Your task to perform on an android device: turn smart compose on in the gmail app Image 0: 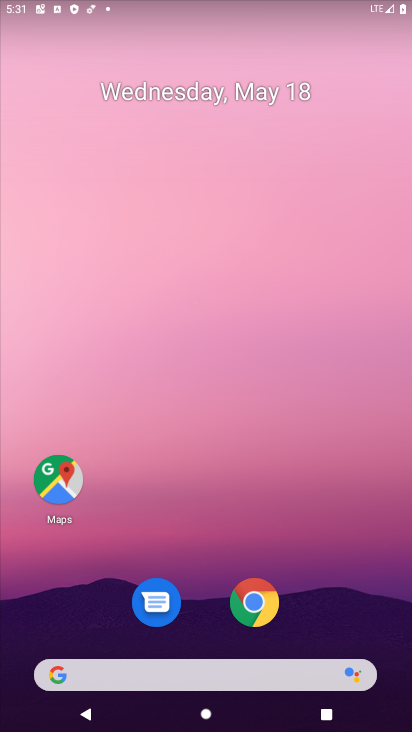
Step 0: drag from (274, 676) to (313, 40)
Your task to perform on an android device: turn smart compose on in the gmail app Image 1: 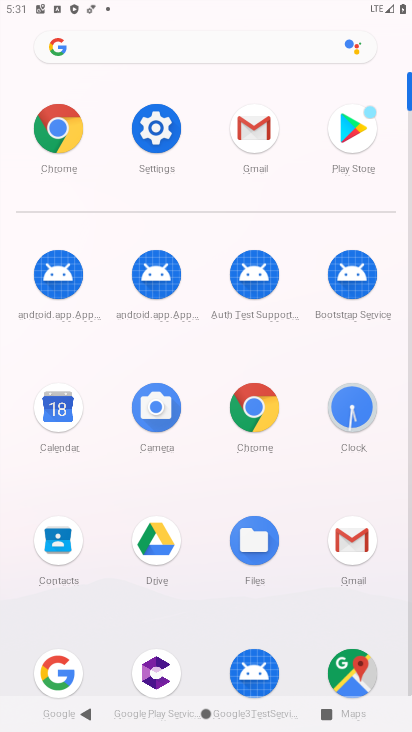
Step 1: click (349, 544)
Your task to perform on an android device: turn smart compose on in the gmail app Image 2: 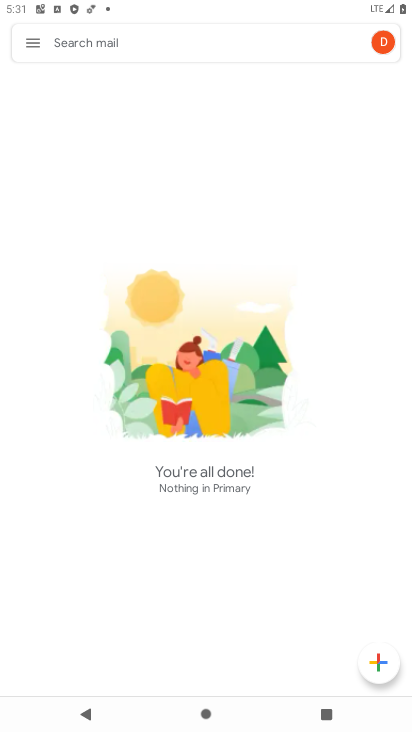
Step 2: click (28, 42)
Your task to perform on an android device: turn smart compose on in the gmail app Image 3: 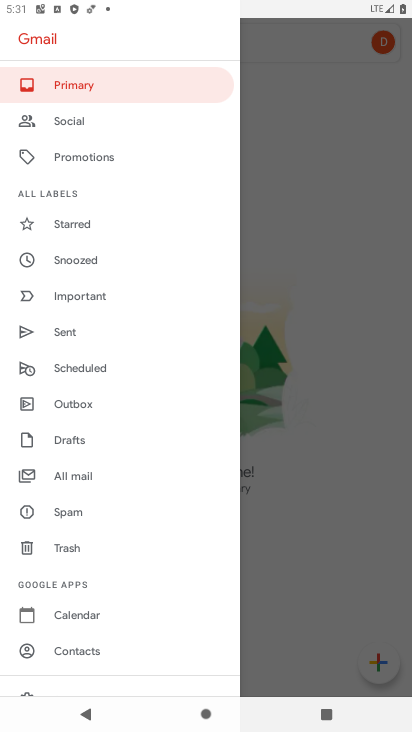
Step 3: drag from (90, 651) to (85, 234)
Your task to perform on an android device: turn smart compose on in the gmail app Image 4: 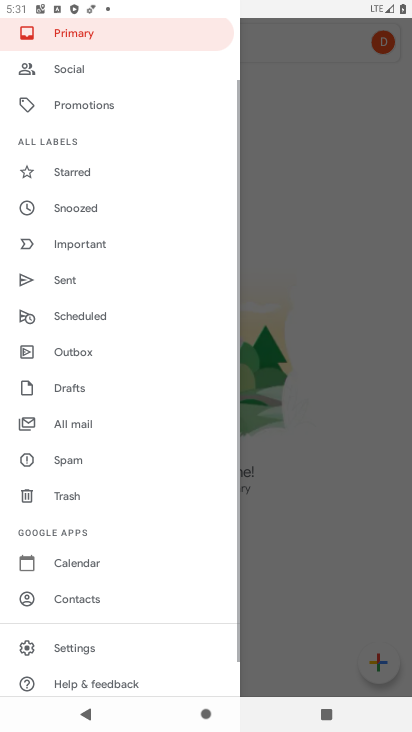
Step 4: click (68, 645)
Your task to perform on an android device: turn smart compose on in the gmail app Image 5: 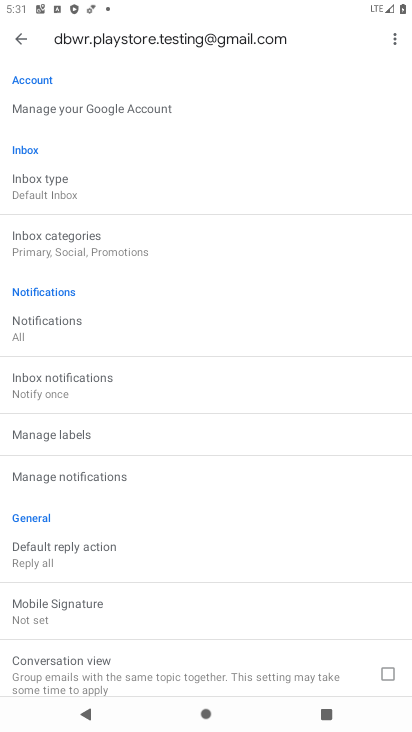
Step 5: task complete